Your task to perform on an android device: Open Wikipedia Image 0: 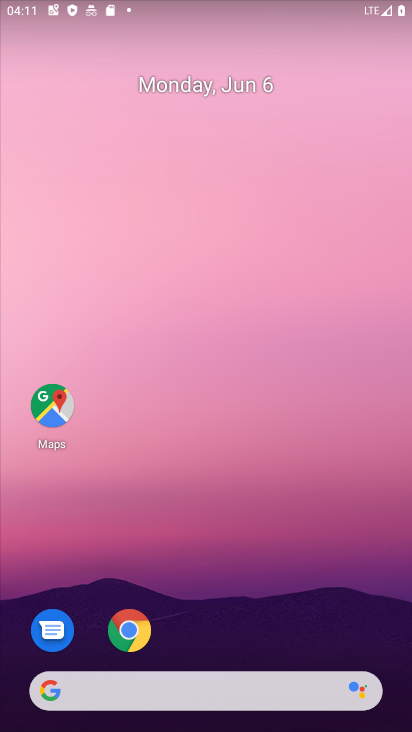
Step 0: press home button
Your task to perform on an android device: Open Wikipedia Image 1: 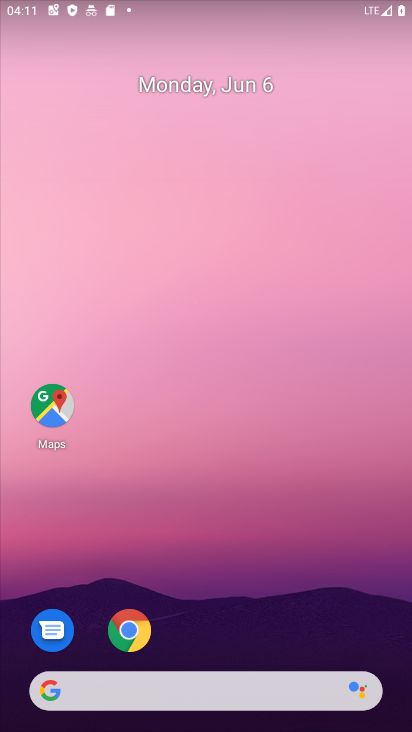
Step 1: drag from (230, 629) to (208, 10)
Your task to perform on an android device: Open Wikipedia Image 2: 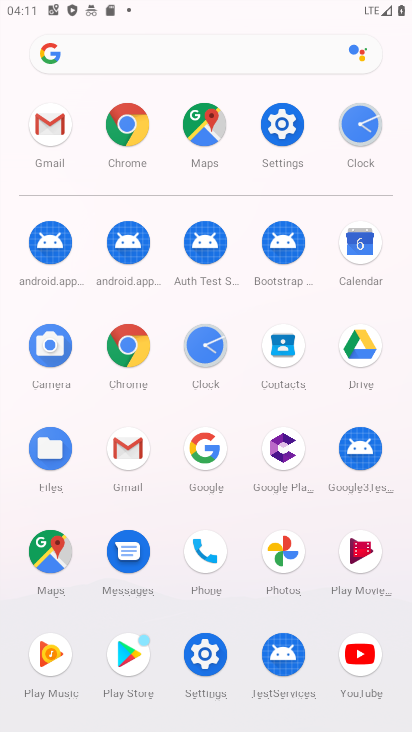
Step 2: click (105, 130)
Your task to perform on an android device: Open Wikipedia Image 3: 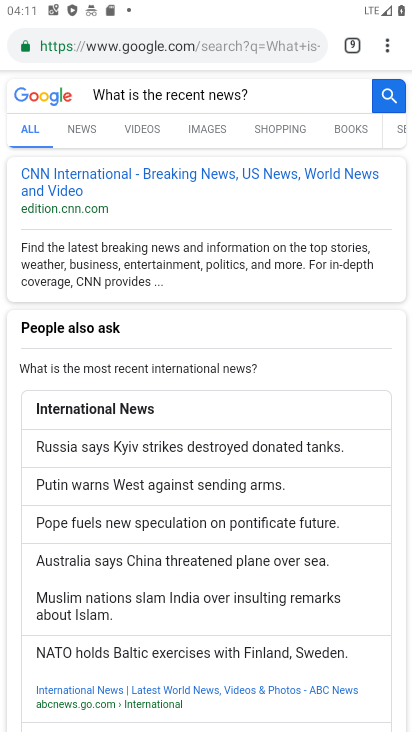
Step 3: click (296, 52)
Your task to perform on an android device: Open Wikipedia Image 4: 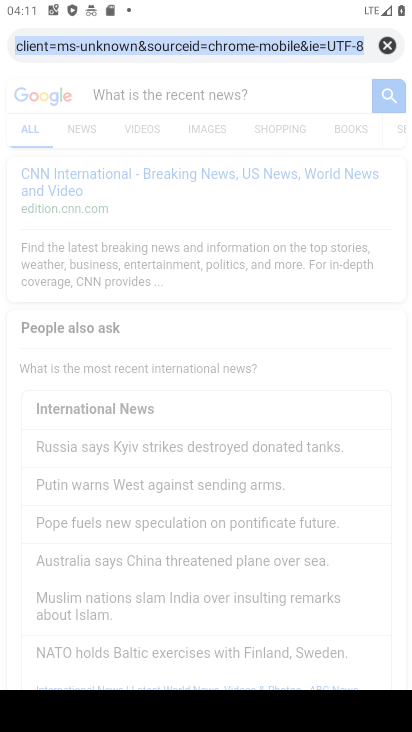
Step 4: type "Wikipedia"
Your task to perform on an android device: Open Wikipedia Image 5: 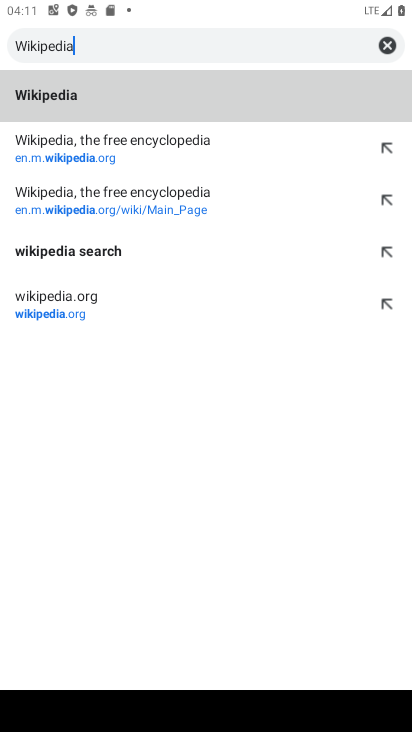
Step 5: click (89, 150)
Your task to perform on an android device: Open Wikipedia Image 6: 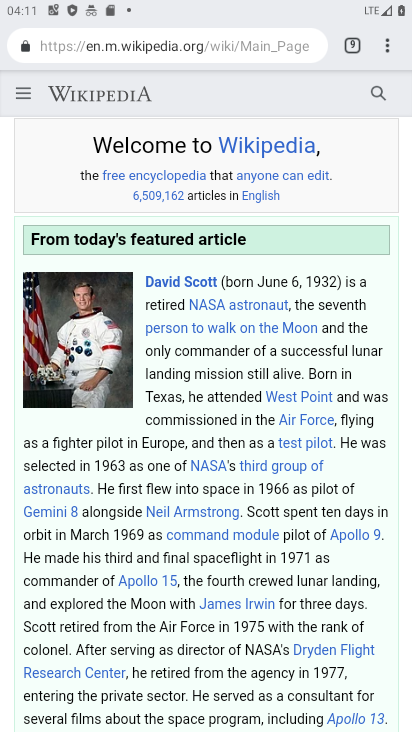
Step 6: task complete